Your task to perform on an android device: Open settings Image 0: 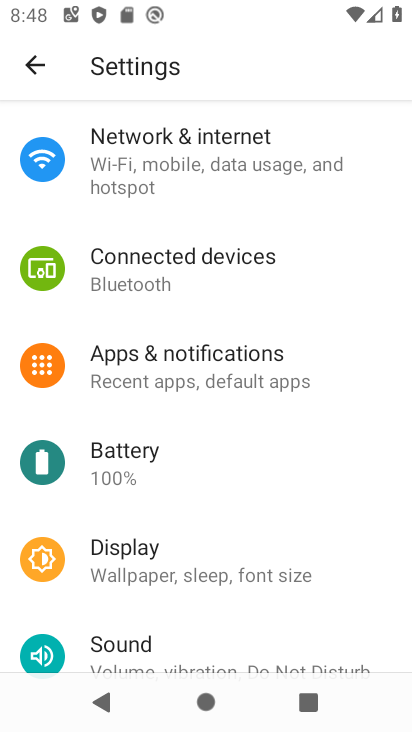
Step 0: drag from (186, 554) to (175, 616)
Your task to perform on an android device: Open settings Image 1: 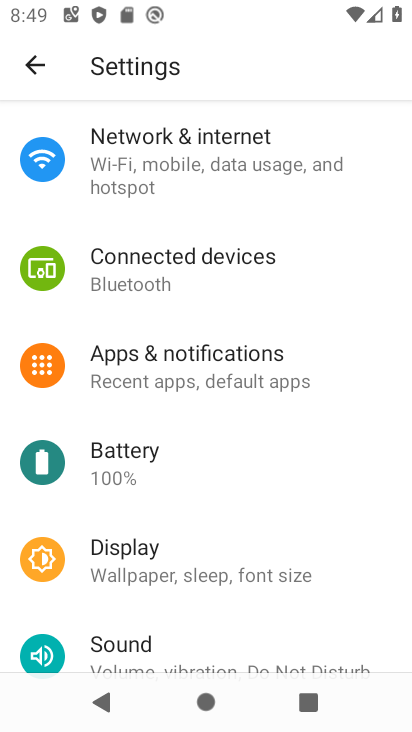
Step 1: task complete